Your task to perform on an android device: move an email to a new category in the gmail app Image 0: 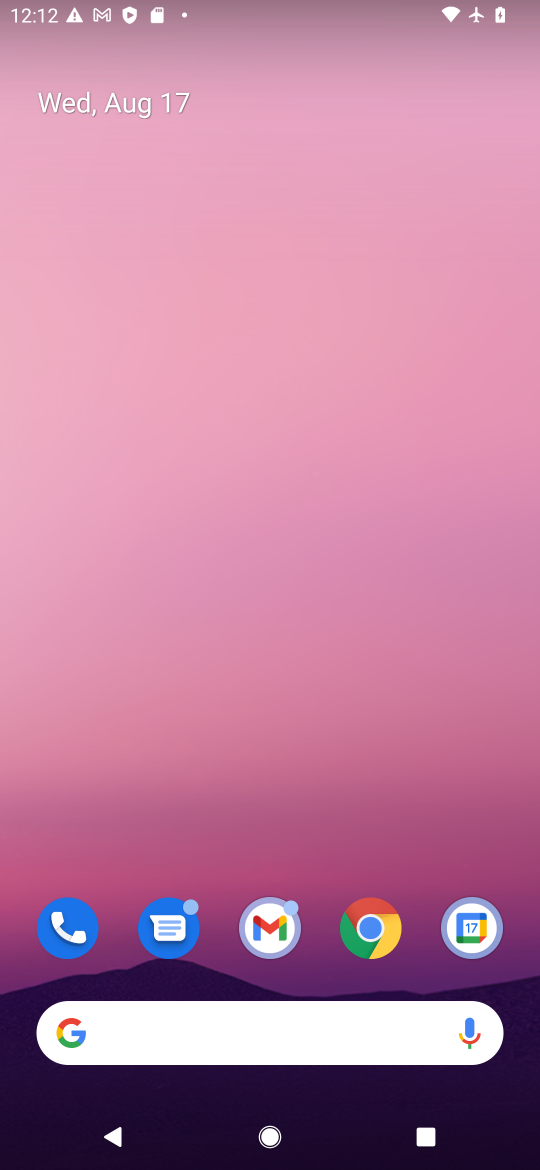
Step 0: click (279, 928)
Your task to perform on an android device: move an email to a new category in the gmail app Image 1: 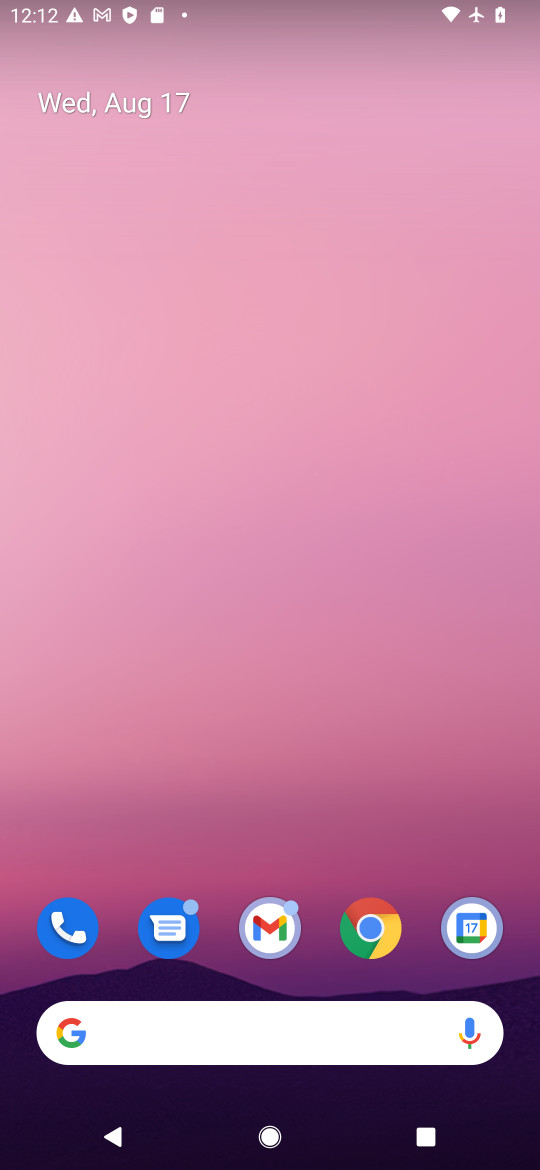
Step 1: click (260, 918)
Your task to perform on an android device: move an email to a new category in the gmail app Image 2: 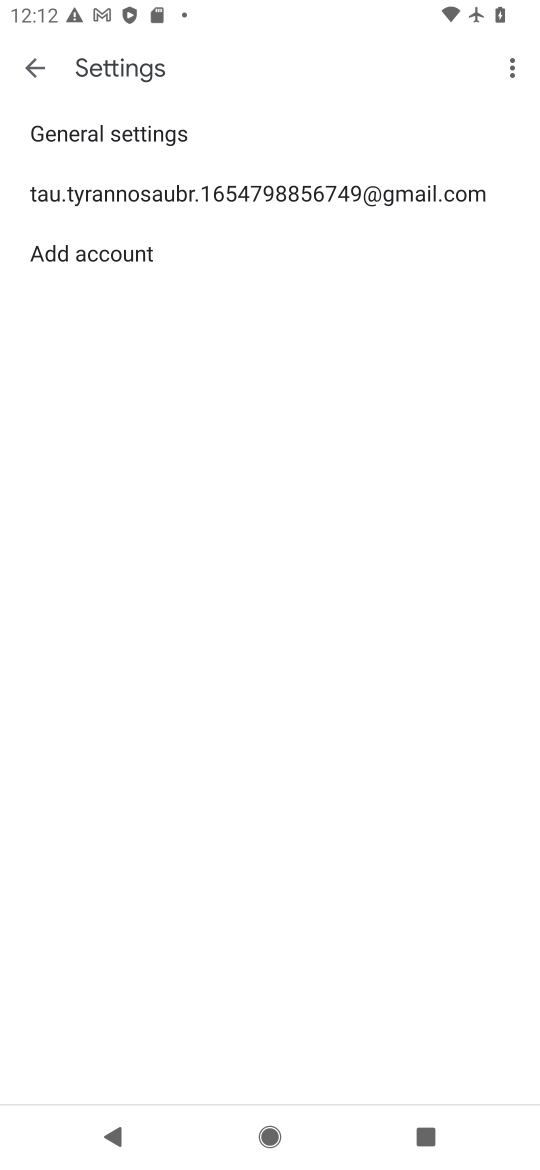
Step 2: click (41, 66)
Your task to perform on an android device: move an email to a new category in the gmail app Image 3: 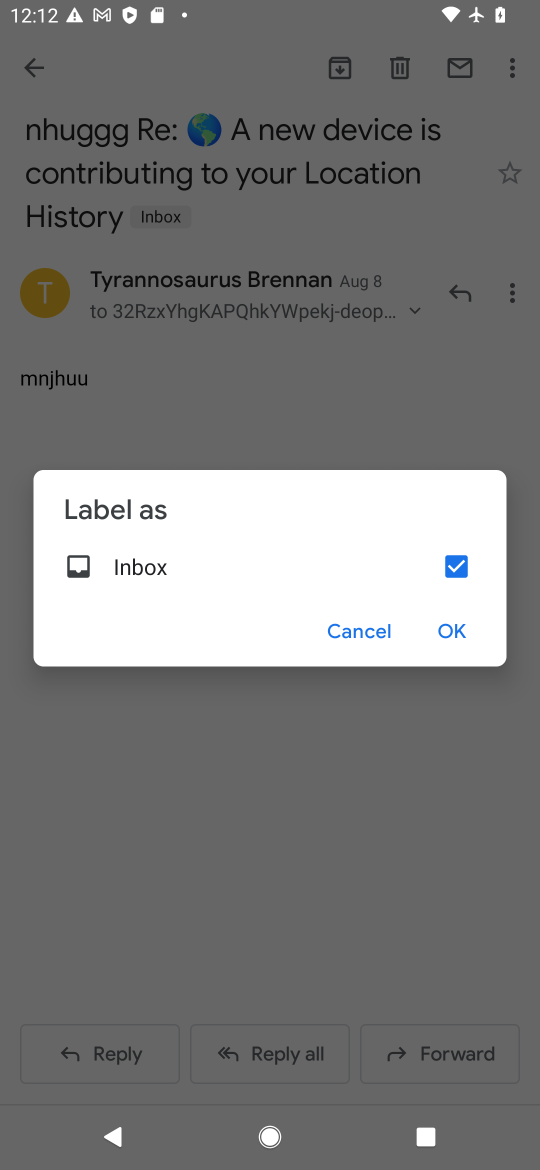
Step 3: click (332, 633)
Your task to perform on an android device: move an email to a new category in the gmail app Image 4: 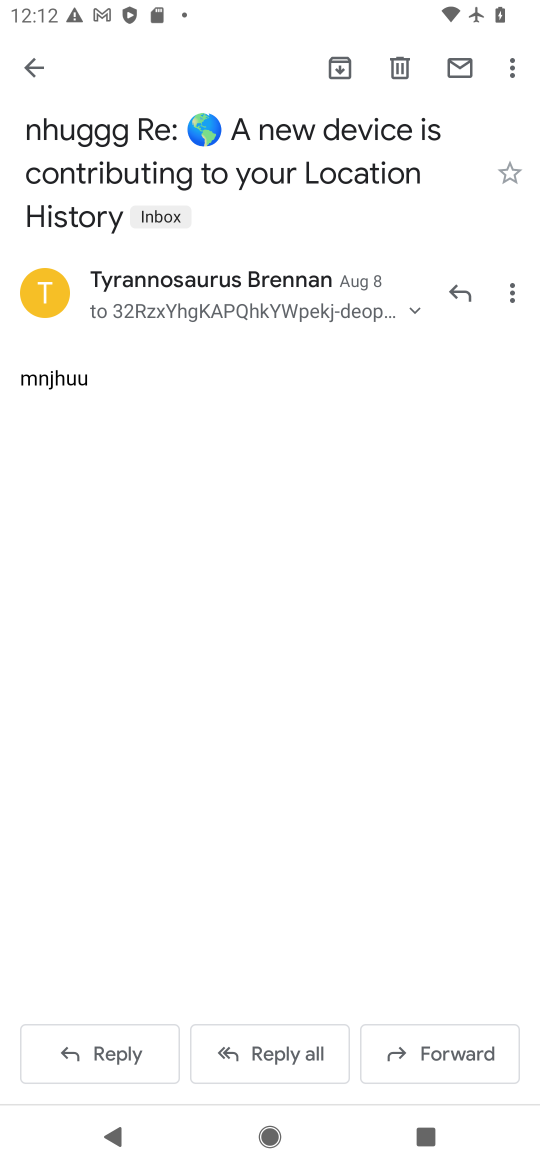
Step 4: click (510, 71)
Your task to perform on an android device: move an email to a new category in the gmail app Image 5: 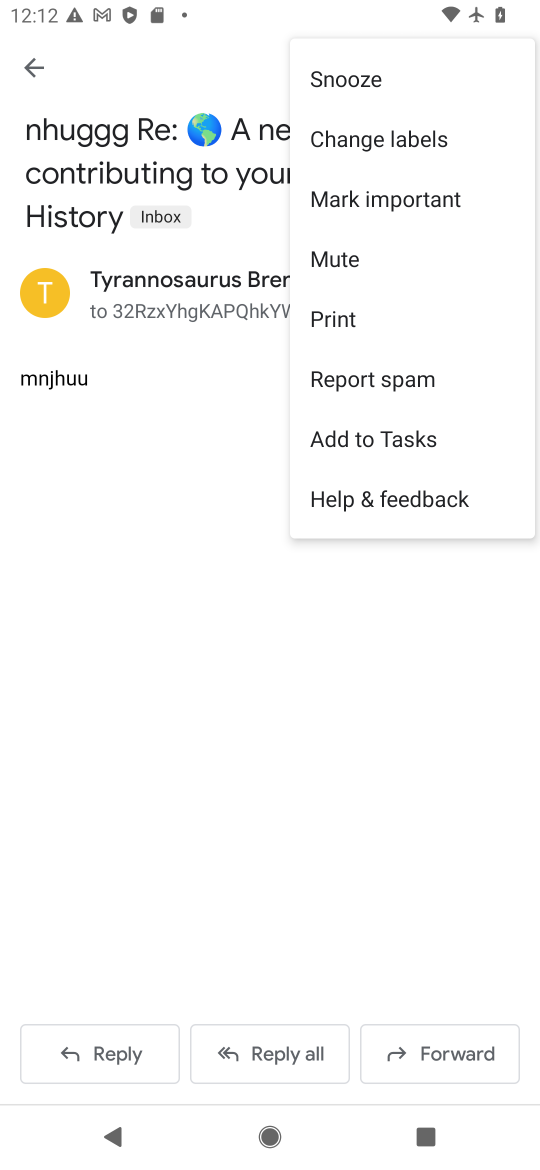
Step 5: click (24, 78)
Your task to perform on an android device: move an email to a new category in the gmail app Image 6: 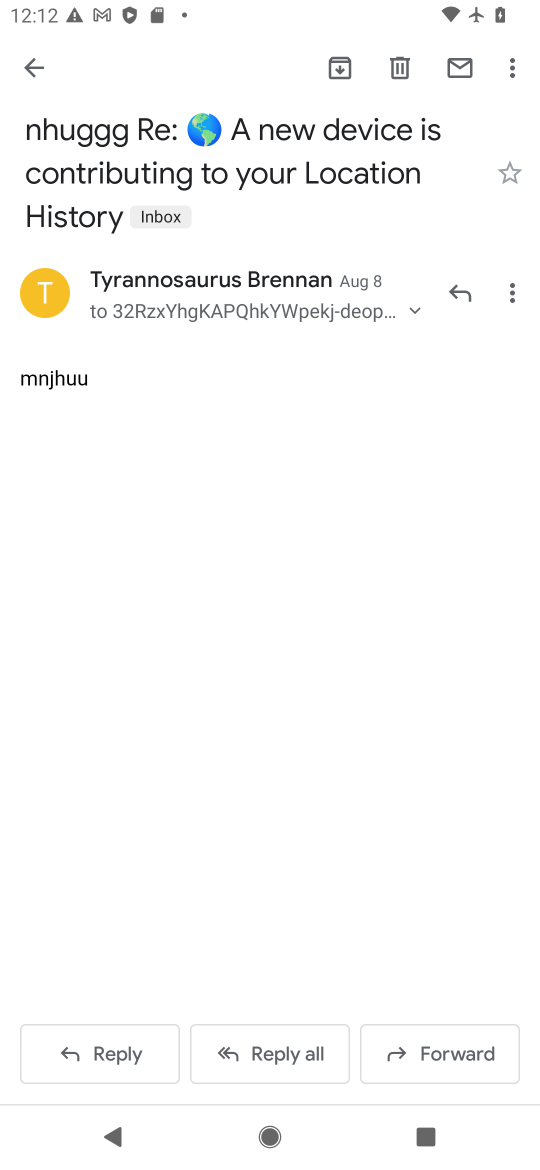
Step 6: click (24, 78)
Your task to perform on an android device: move an email to a new category in the gmail app Image 7: 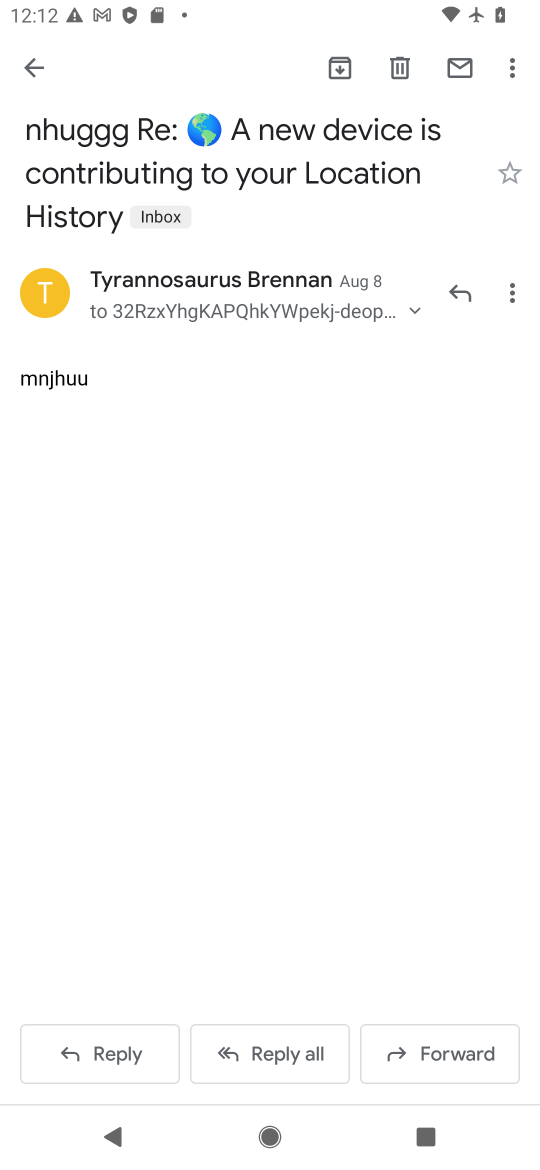
Step 7: click (36, 56)
Your task to perform on an android device: move an email to a new category in the gmail app Image 8: 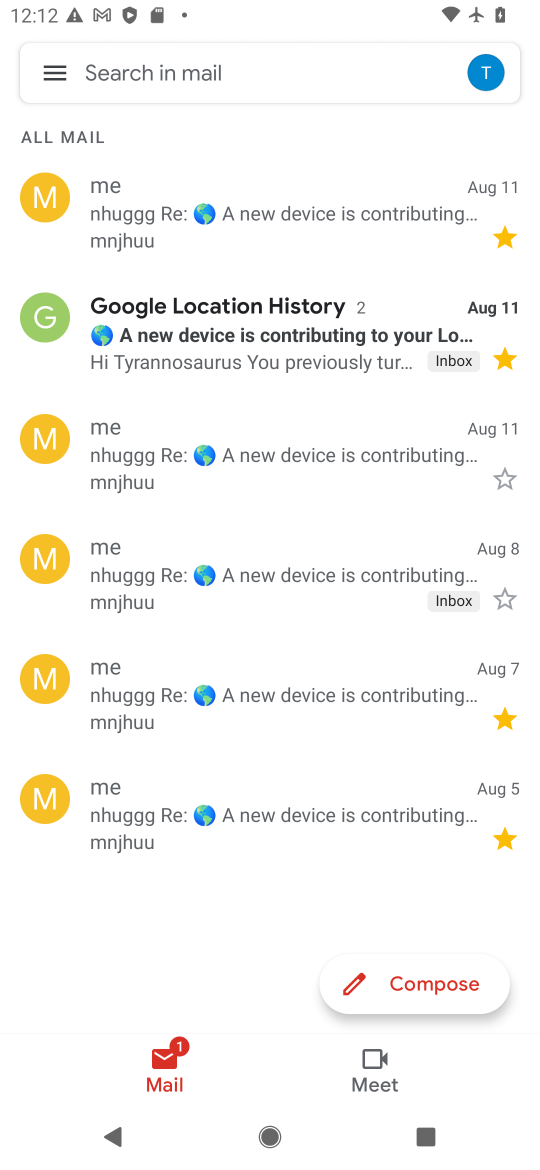
Step 8: click (263, 309)
Your task to perform on an android device: move an email to a new category in the gmail app Image 9: 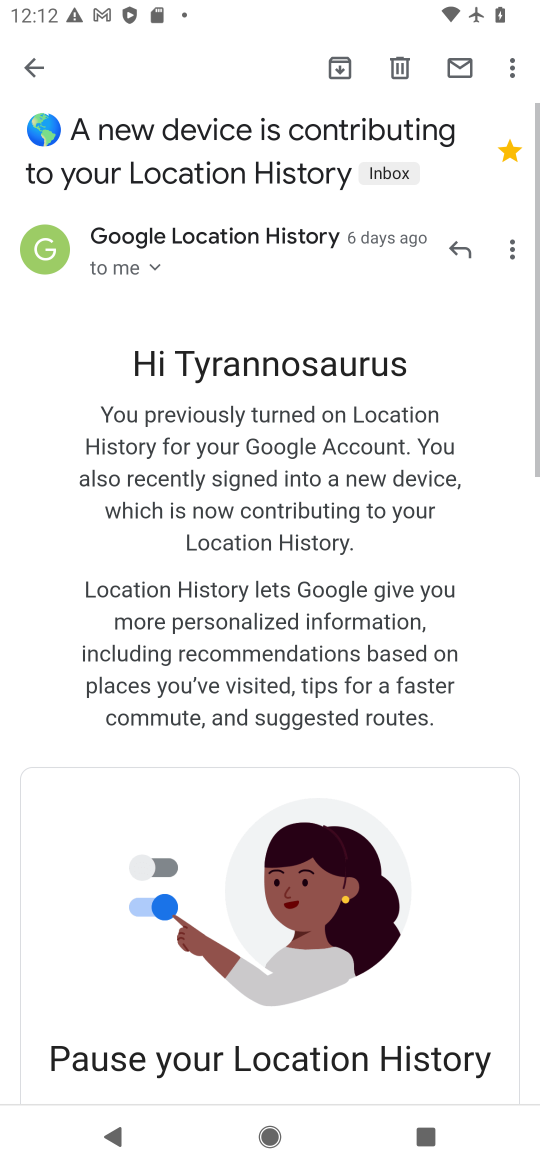
Step 9: click (514, 71)
Your task to perform on an android device: move an email to a new category in the gmail app Image 10: 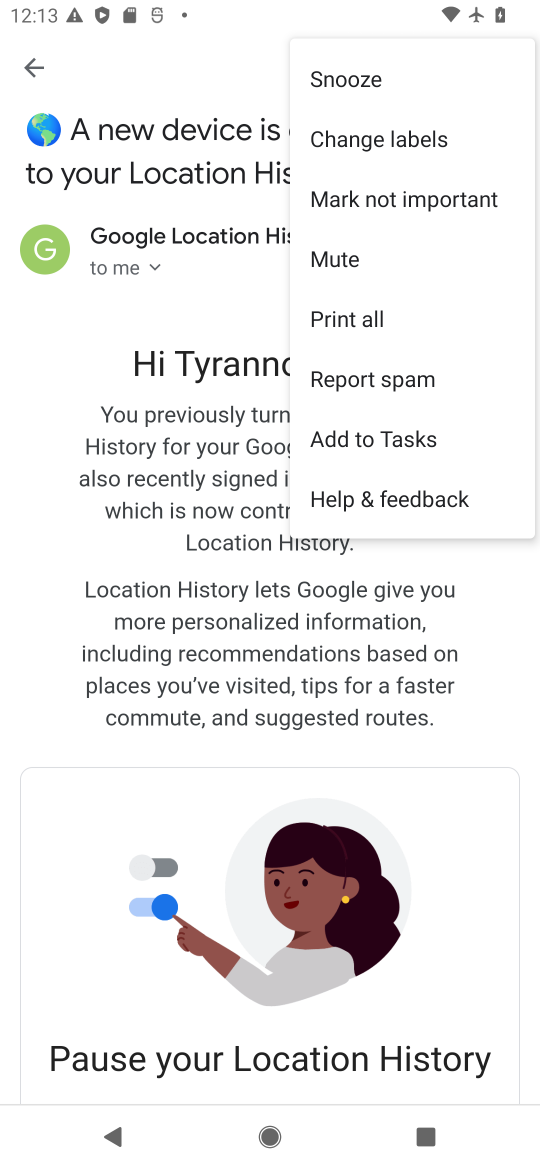
Step 10: click (383, 150)
Your task to perform on an android device: move an email to a new category in the gmail app Image 11: 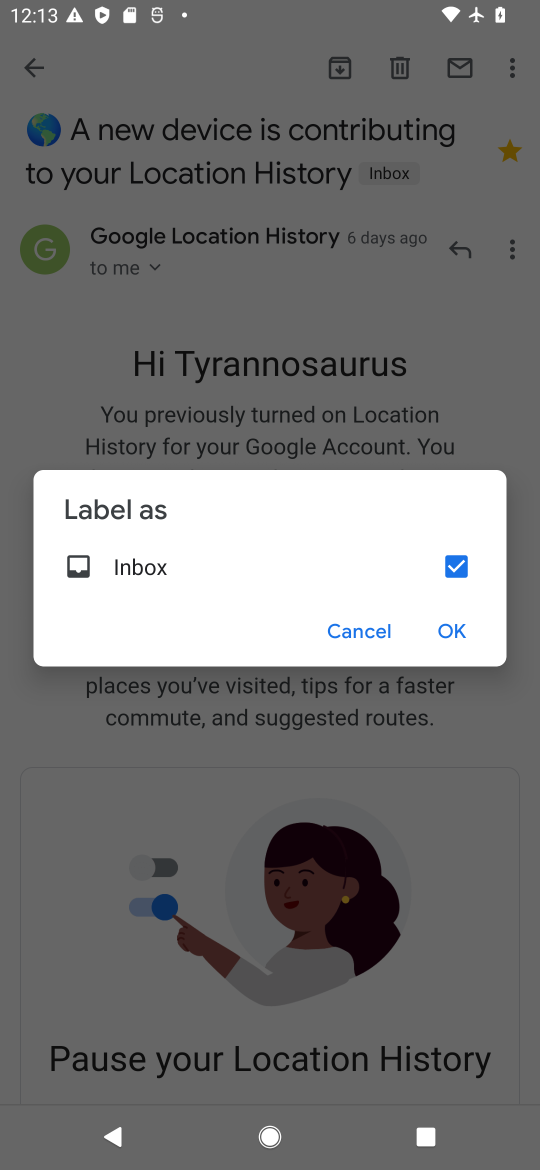
Step 11: click (447, 619)
Your task to perform on an android device: move an email to a new category in the gmail app Image 12: 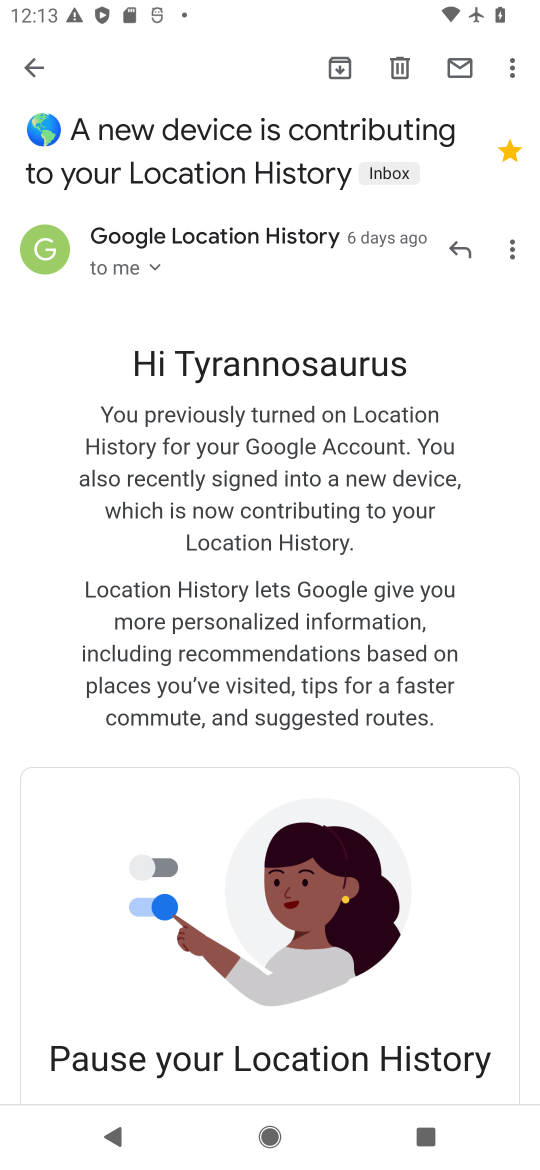
Step 12: task complete